Your task to perform on an android device: Go to Android settings Image 0: 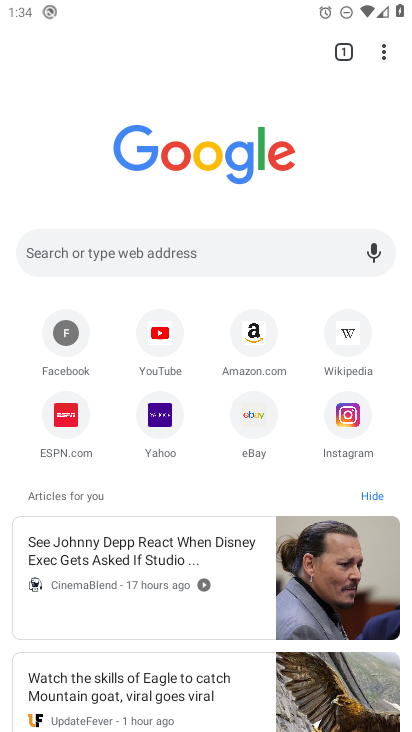
Step 0: press home button
Your task to perform on an android device: Go to Android settings Image 1: 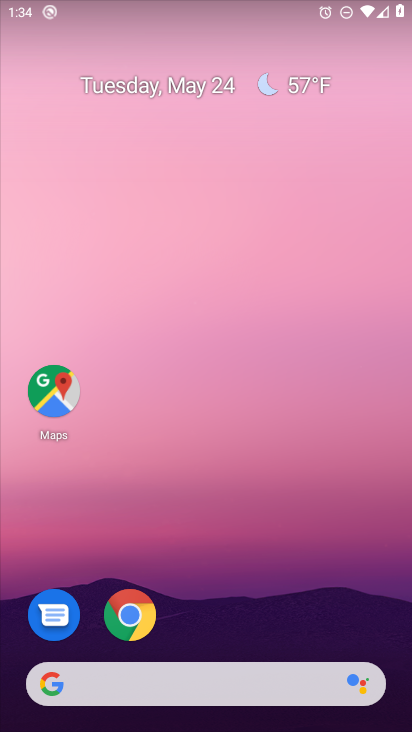
Step 1: drag from (280, 659) to (263, 222)
Your task to perform on an android device: Go to Android settings Image 2: 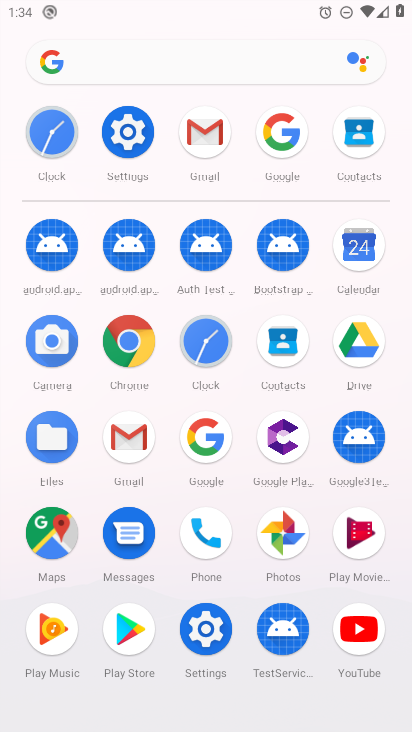
Step 2: click (127, 133)
Your task to perform on an android device: Go to Android settings Image 3: 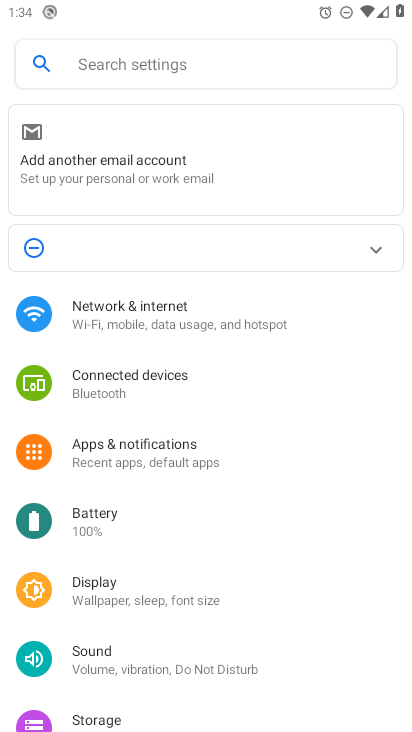
Step 3: task complete